Your task to perform on an android device: Go to Reddit.com Image 0: 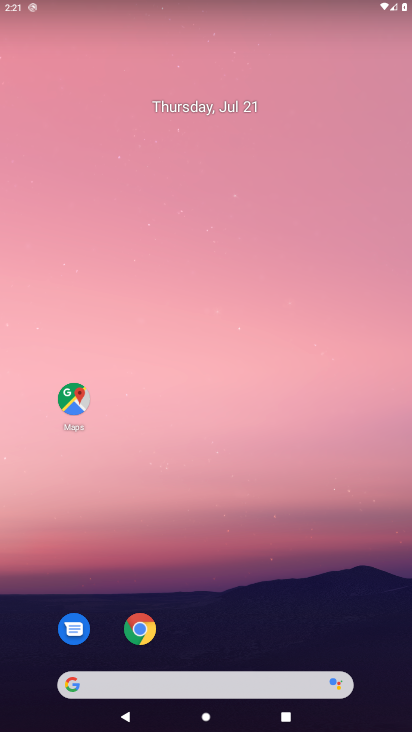
Step 0: click (118, 684)
Your task to perform on an android device: Go to Reddit.com Image 1: 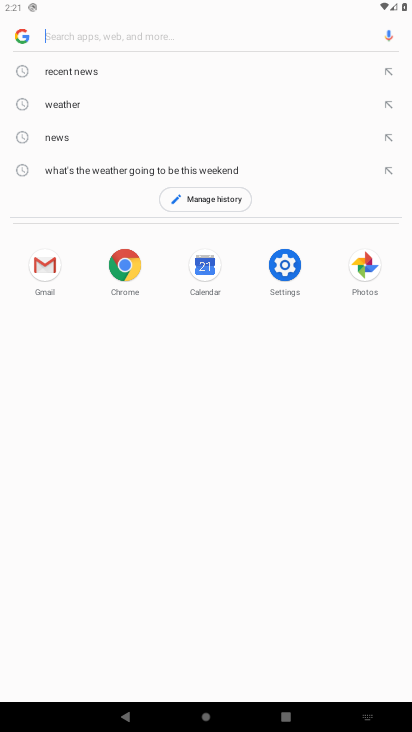
Step 1: type "Reddit.com"
Your task to perform on an android device: Go to Reddit.com Image 2: 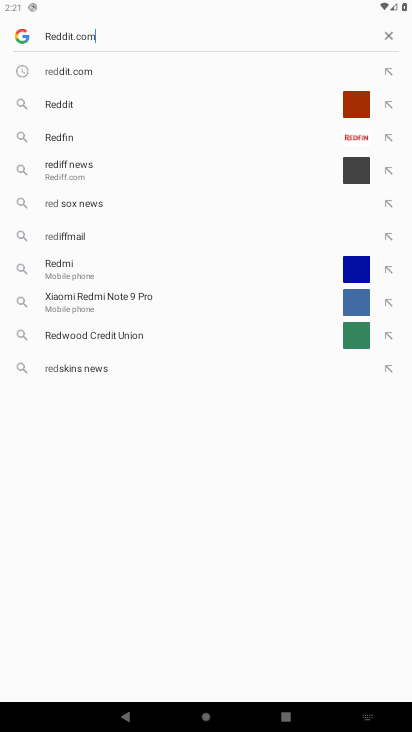
Step 2: type ""
Your task to perform on an android device: Go to Reddit.com Image 3: 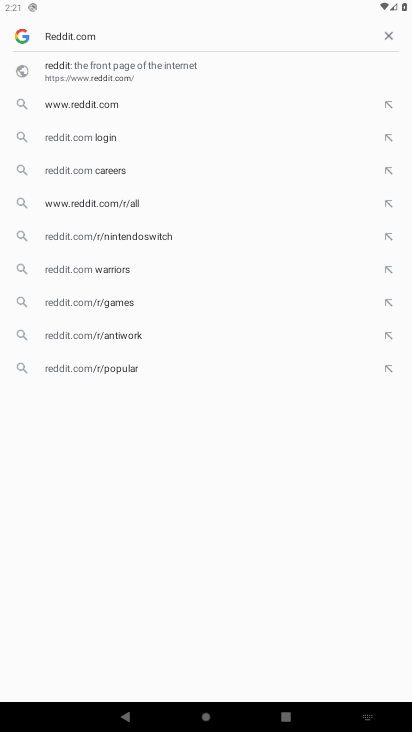
Step 3: type ""
Your task to perform on an android device: Go to Reddit.com Image 4: 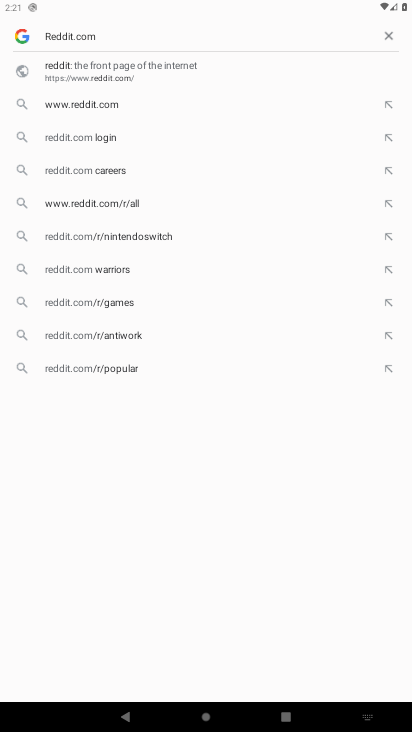
Step 4: type ""
Your task to perform on an android device: Go to Reddit.com Image 5: 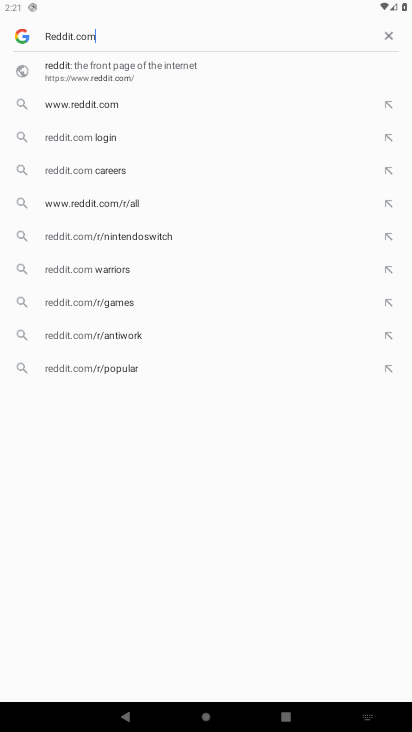
Step 5: task complete